Your task to perform on an android device: show emergency info Image 0: 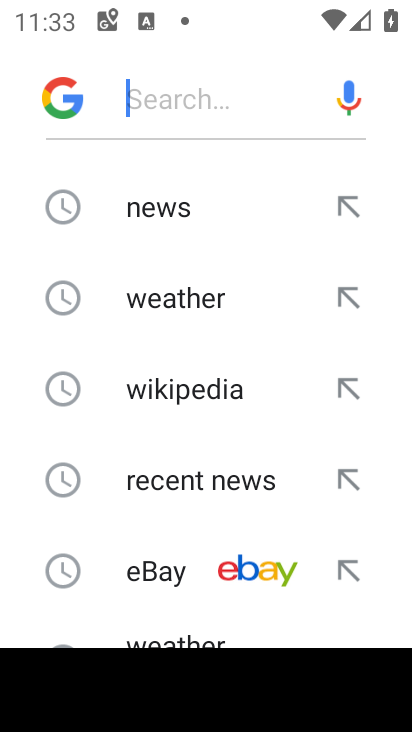
Step 0: press home button
Your task to perform on an android device: show emergency info Image 1: 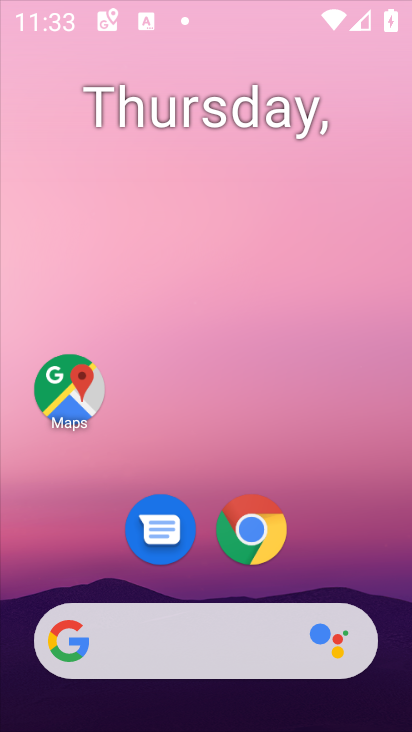
Step 1: drag from (177, 546) to (225, 99)
Your task to perform on an android device: show emergency info Image 2: 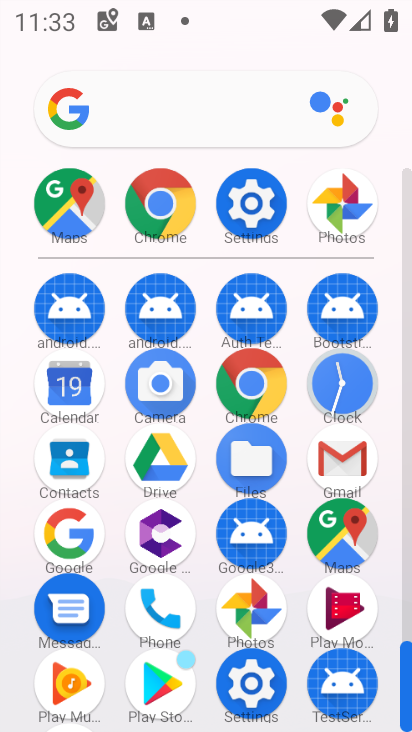
Step 2: click (244, 214)
Your task to perform on an android device: show emergency info Image 3: 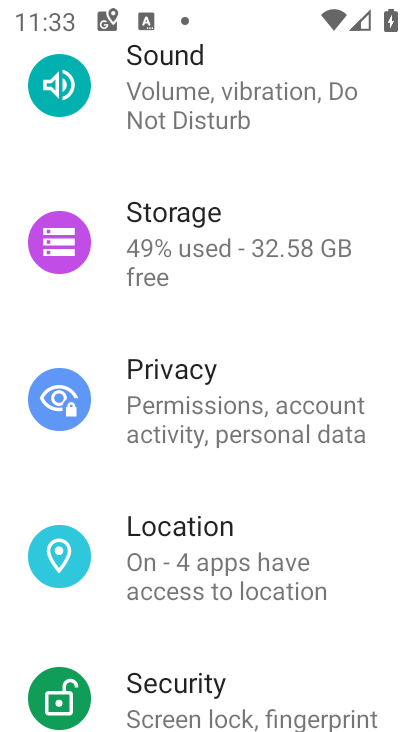
Step 3: drag from (223, 562) to (210, 75)
Your task to perform on an android device: show emergency info Image 4: 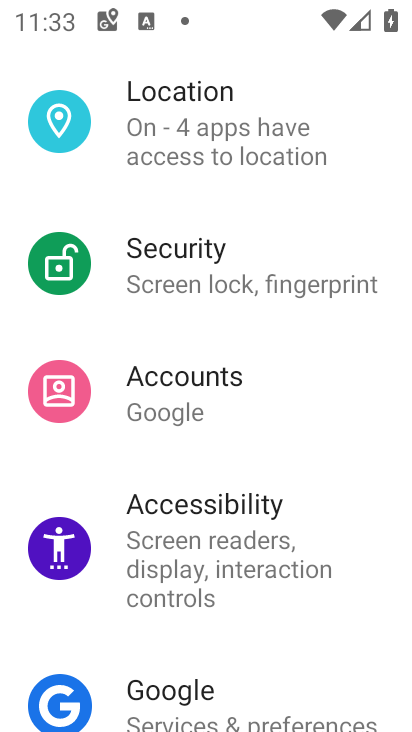
Step 4: drag from (208, 581) to (256, 99)
Your task to perform on an android device: show emergency info Image 5: 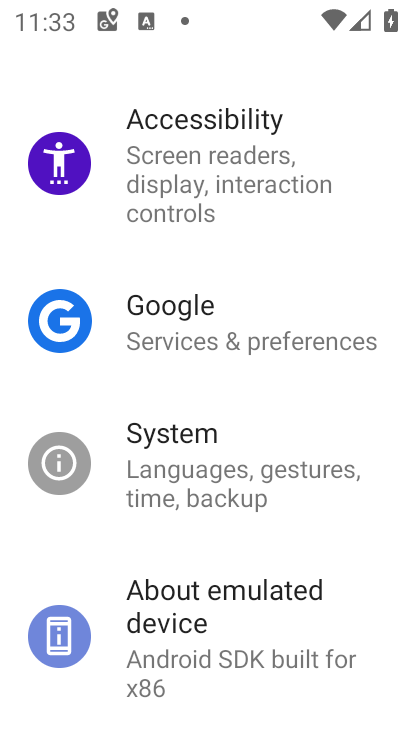
Step 5: drag from (233, 577) to (263, 225)
Your task to perform on an android device: show emergency info Image 6: 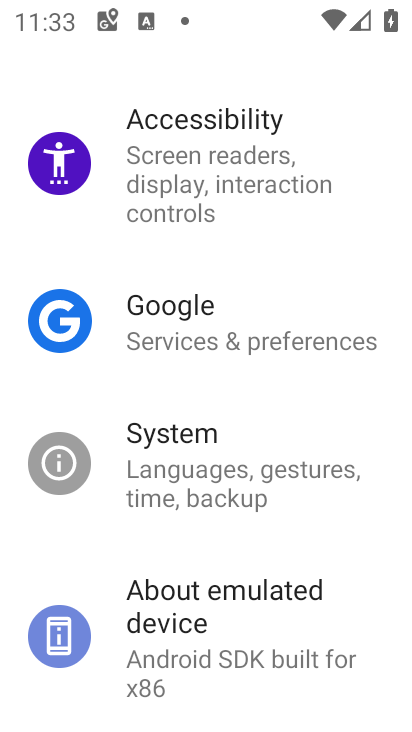
Step 6: click (231, 632)
Your task to perform on an android device: show emergency info Image 7: 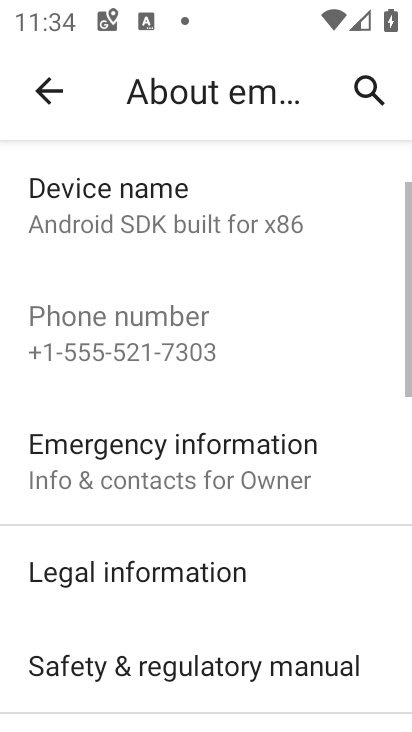
Step 7: click (213, 469)
Your task to perform on an android device: show emergency info Image 8: 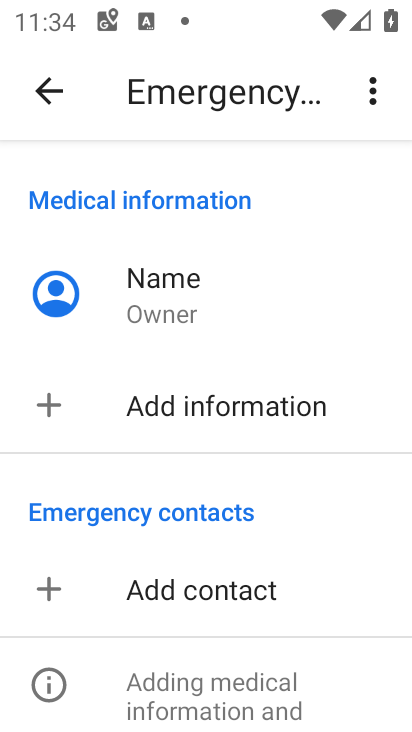
Step 8: task complete